Your task to perform on an android device: change the upload size in google photos Image 0: 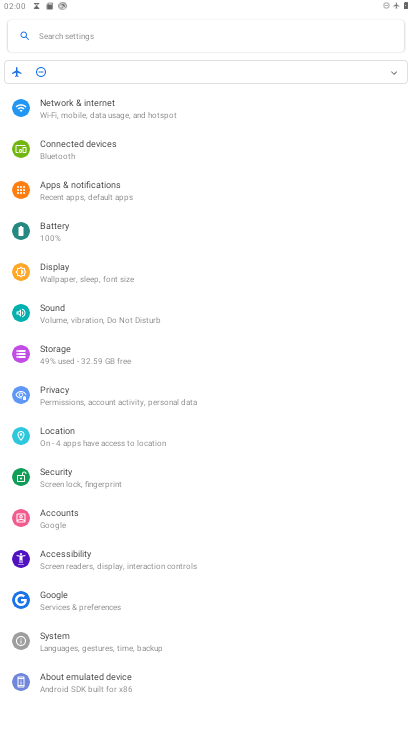
Step 0: press home button
Your task to perform on an android device: change the upload size in google photos Image 1: 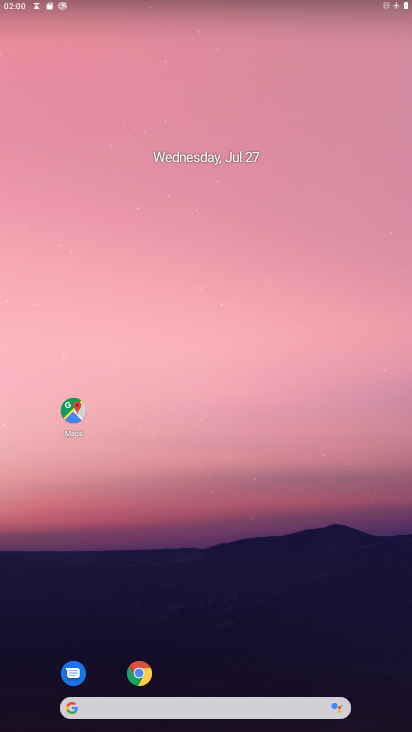
Step 1: drag from (196, 661) to (175, 215)
Your task to perform on an android device: change the upload size in google photos Image 2: 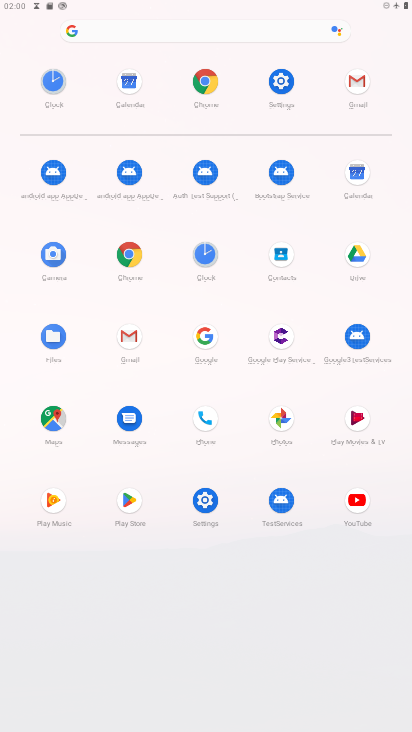
Step 2: click (278, 411)
Your task to perform on an android device: change the upload size in google photos Image 3: 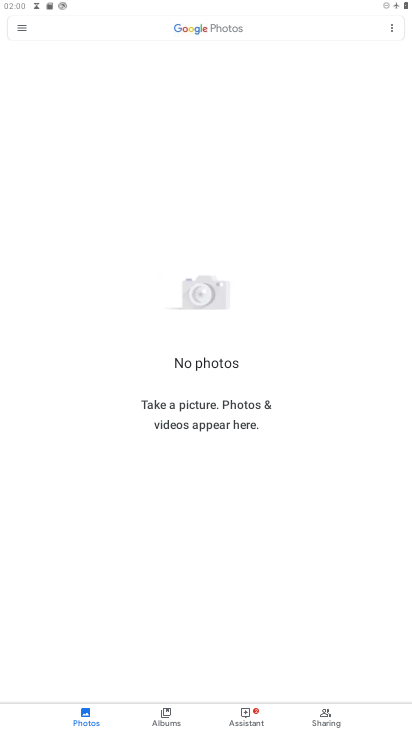
Step 3: click (23, 16)
Your task to perform on an android device: change the upload size in google photos Image 4: 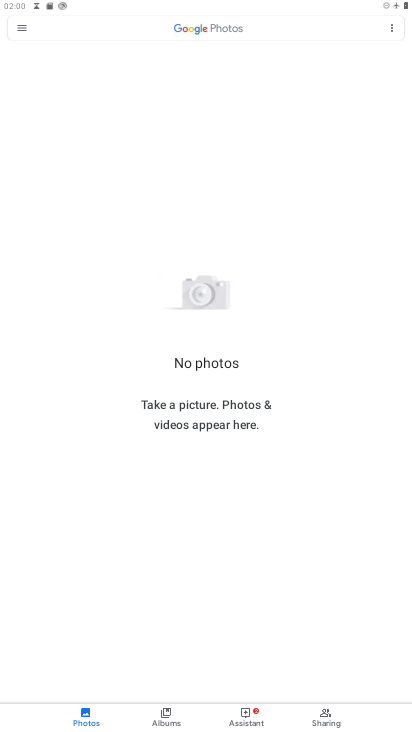
Step 4: click (19, 19)
Your task to perform on an android device: change the upload size in google photos Image 5: 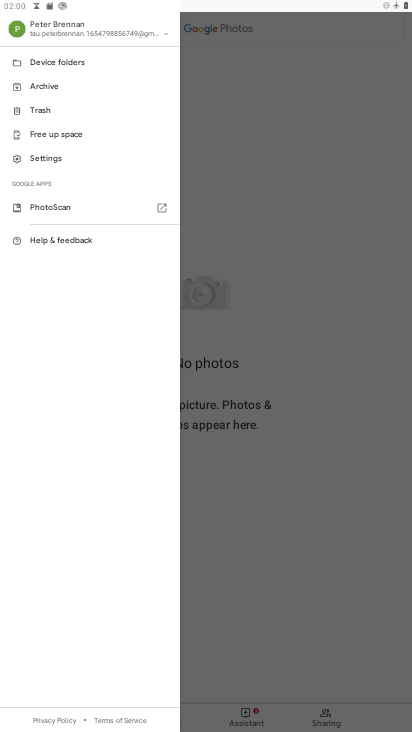
Step 5: click (46, 156)
Your task to perform on an android device: change the upload size in google photos Image 6: 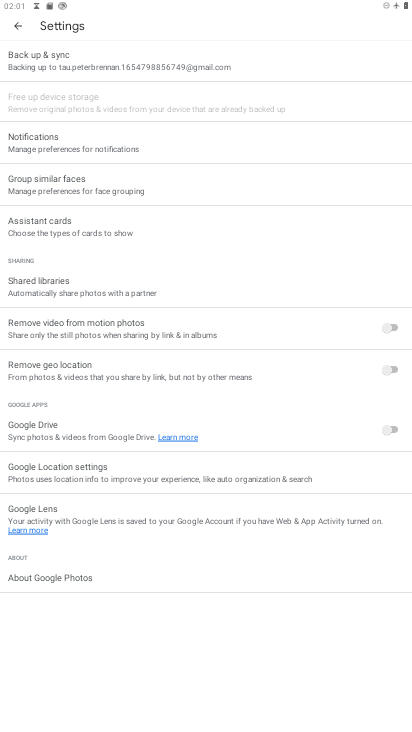
Step 6: click (76, 60)
Your task to perform on an android device: change the upload size in google photos Image 7: 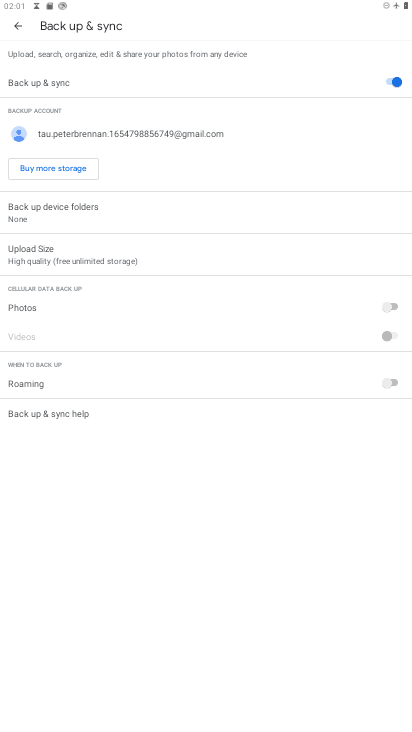
Step 7: click (53, 259)
Your task to perform on an android device: change the upload size in google photos Image 8: 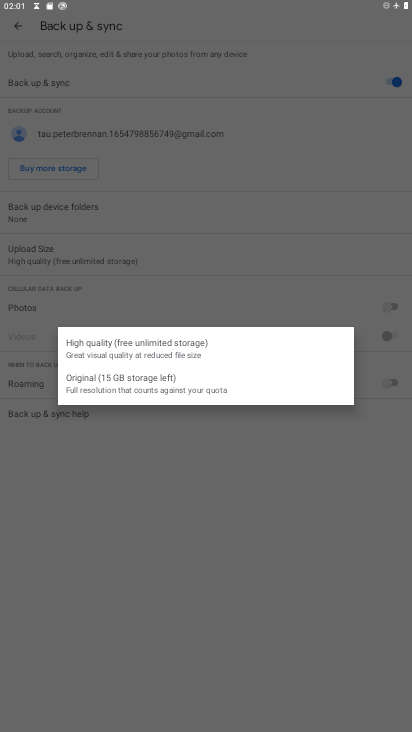
Step 8: click (85, 383)
Your task to perform on an android device: change the upload size in google photos Image 9: 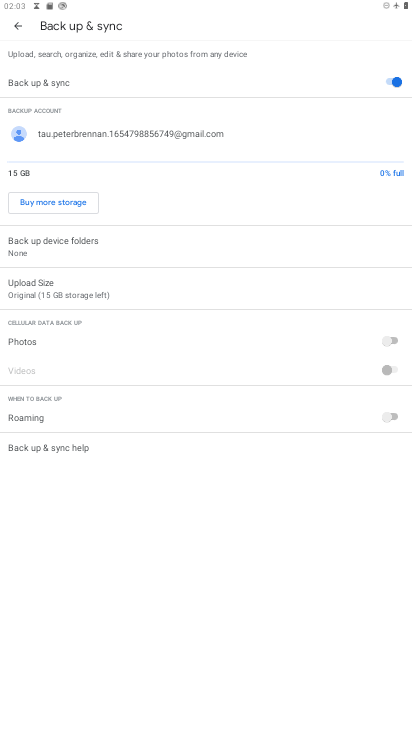
Step 9: task complete